Your task to perform on an android device: create a new album in the google photos Image 0: 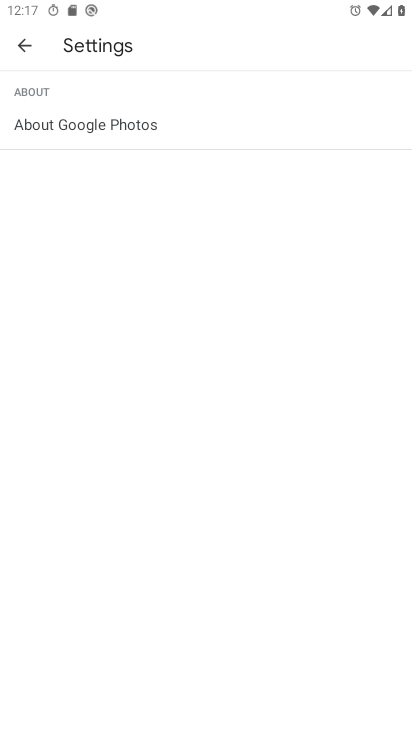
Step 0: click (20, 40)
Your task to perform on an android device: create a new album in the google photos Image 1: 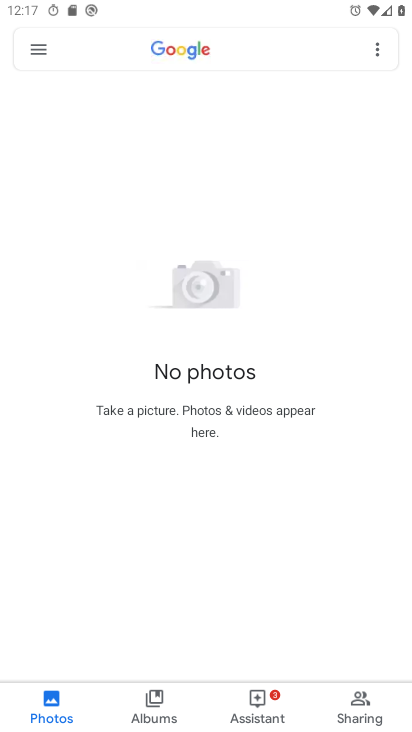
Step 1: press home button
Your task to perform on an android device: create a new album in the google photos Image 2: 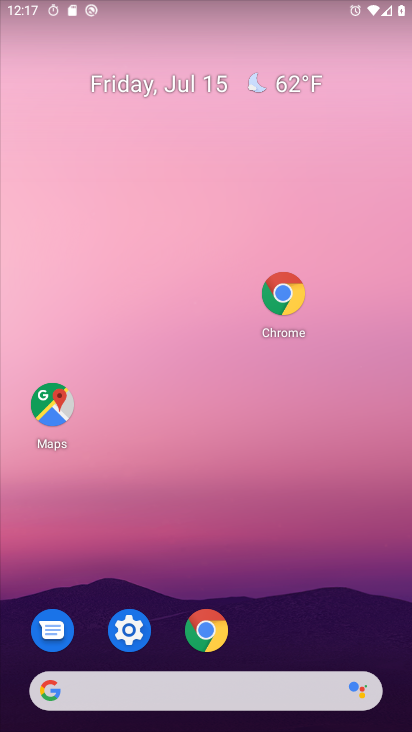
Step 2: drag from (324, 625) to (264, 58)
Your task to perform on an android device: create a new album in the google photos Image 3: 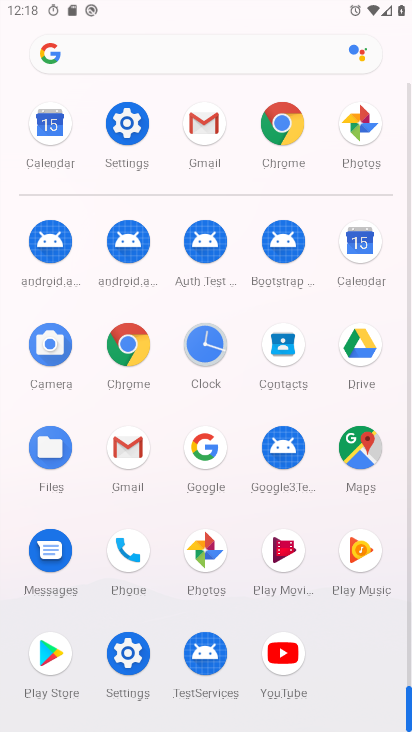
Step 3: click (211, 556)
Your task to perform on an android device: create a new album in the google photos Image 4: 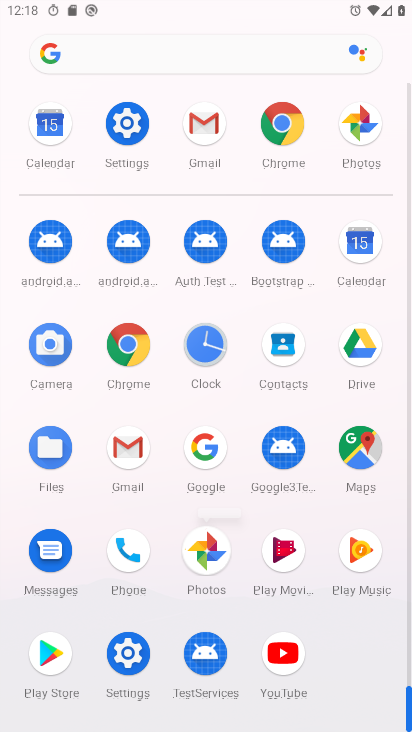
Step 4: click (209, 556)
Your task to perform on an android device: create a new album in the google photos Image 5: 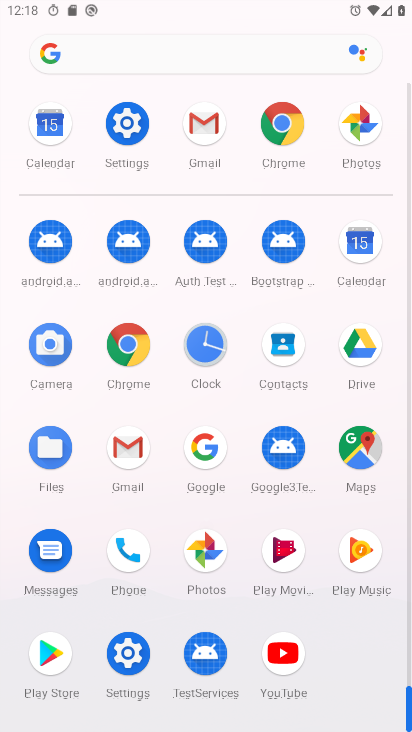
Step 5: click (209, 556)
Your task to perform on an android device: create a new album in the google photos Image 6: 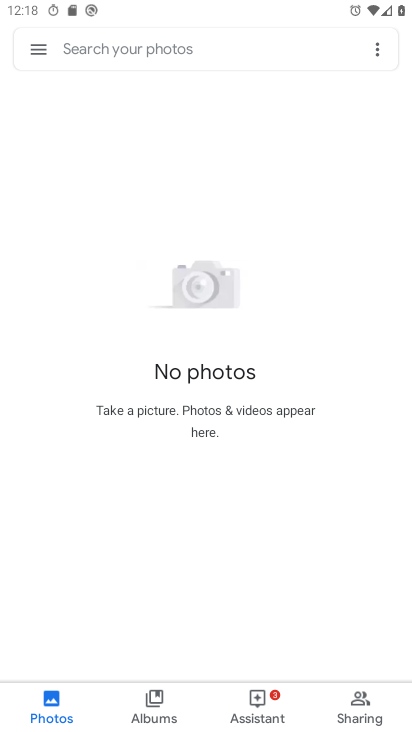
Step 6: click (164, 713)
Your task to perform on an android device: create a new album in the google photos Image 7: 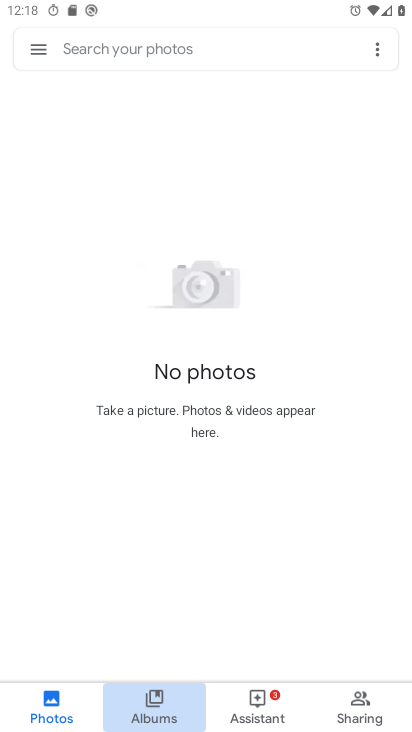
Step 7: click (162, 712)
Your task to perform on an android device: create a new album in the google photos Image 8: 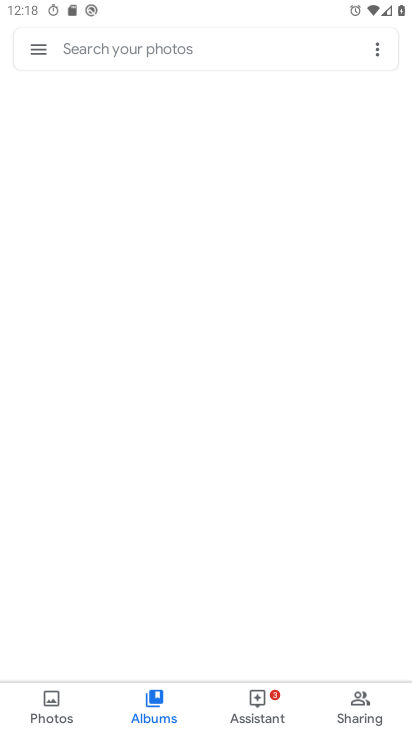
Step 8: click (162, 713)
Your task to perform on an android device: create a new album in the google photos Image 9: 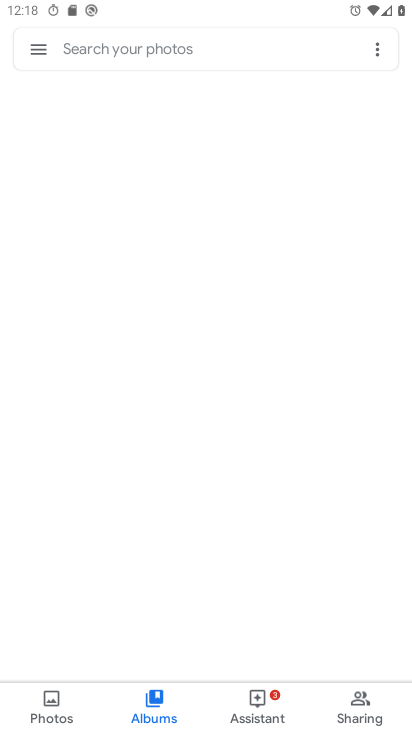
Step 9: click (162, 713)
Your task to perform on an android device: create a new album in the google photos Image 10: 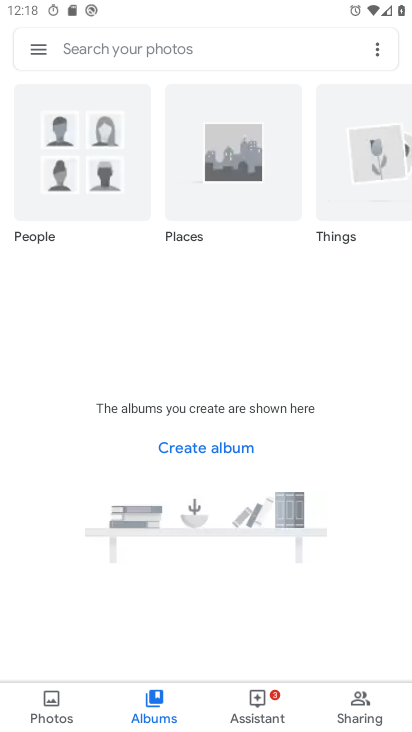
Step 10: click (204, 445)
Your task to perform on an android device: create a new album in the google photos Image 11: 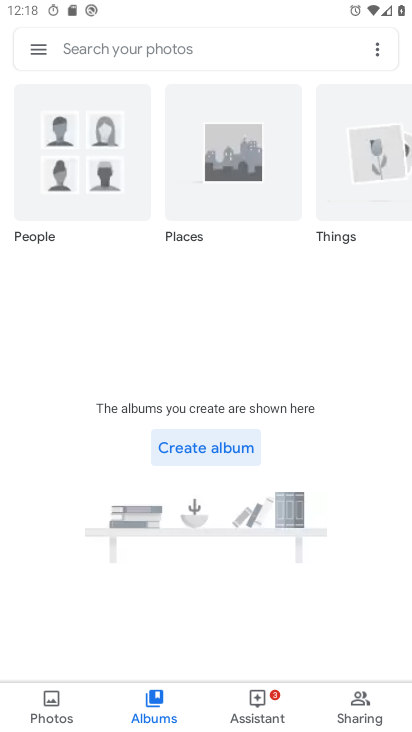
Step 11: click (227, 459)
Your task to perform on an android device: create a new album in the google photos Image 12: 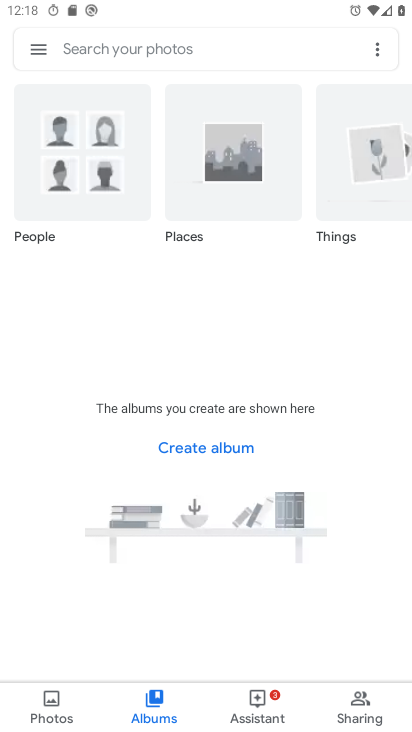
Step 12: click (227, 459)
Your task to perform on an android device: create a new album in the google photos Image 13: 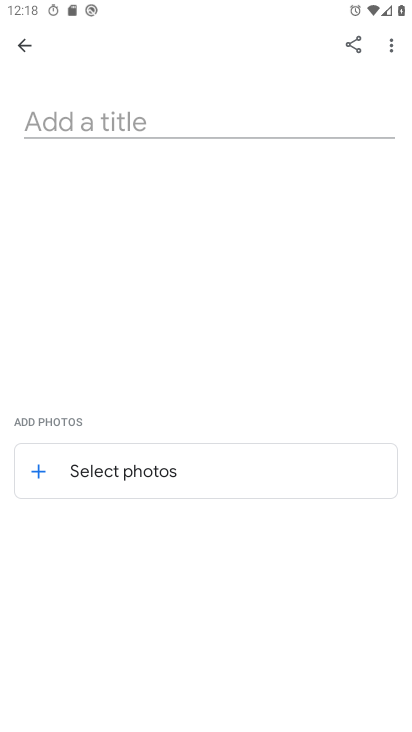
Step 13: click (69, 114)
Your task to perform on an android device: create a new album in the google photos Image 14: 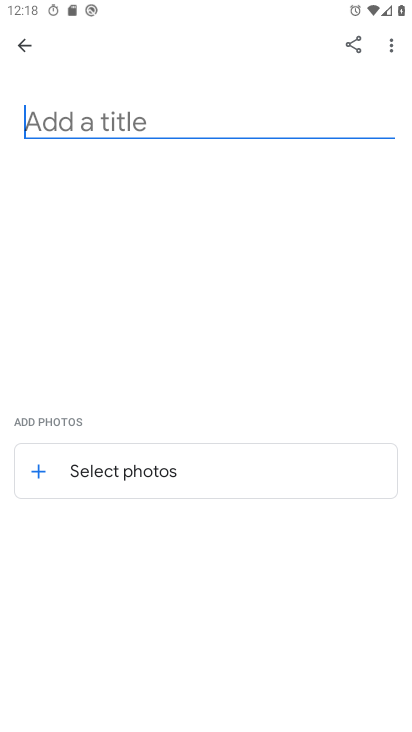
Step 14: click (69, 114)
Your task to perform on an android device: create a new album in the google photos Image 15: 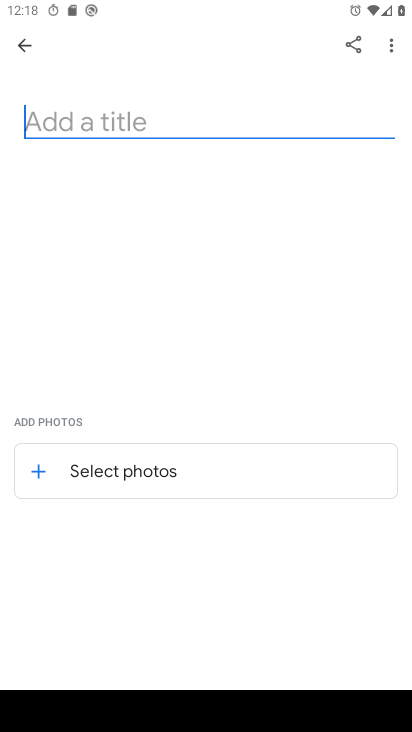
Step 15: type "Somesh"
Your task to perform on an android device: create a new album in the google photos Image 16: 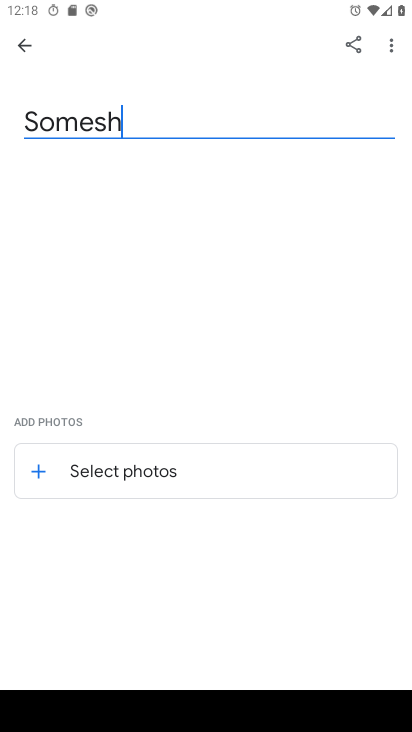
Step 16: click (92, 476)
Your task to perform on an android device: create a new album in the google photos Image 17: 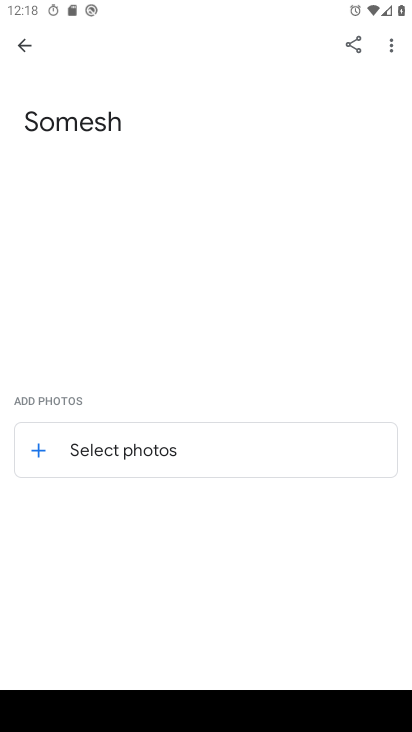
Step 17: click (92, 476)
Your task to perform on an android device: create a new album in the google photos Image 18: 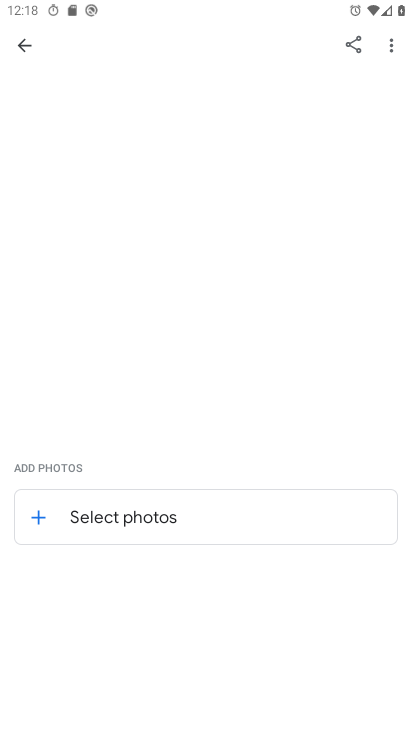
Step 18: click (92, 476)
Your task to perform on an android device: create a new album in the google photos Image 19: 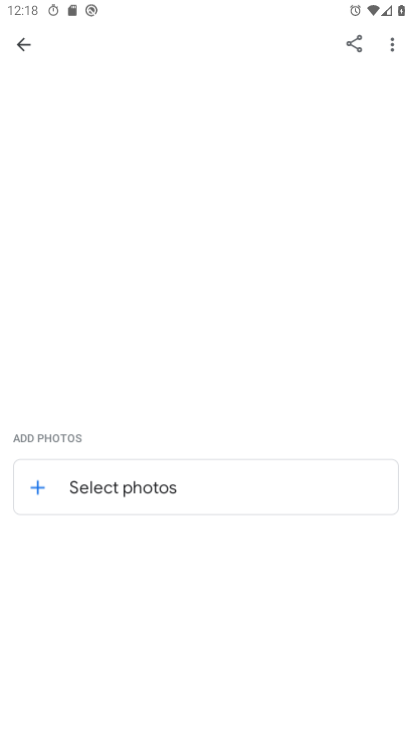
Step 19: click (92, 476)
Your task to perform on an android device: create a new album in the google photos Image 20: 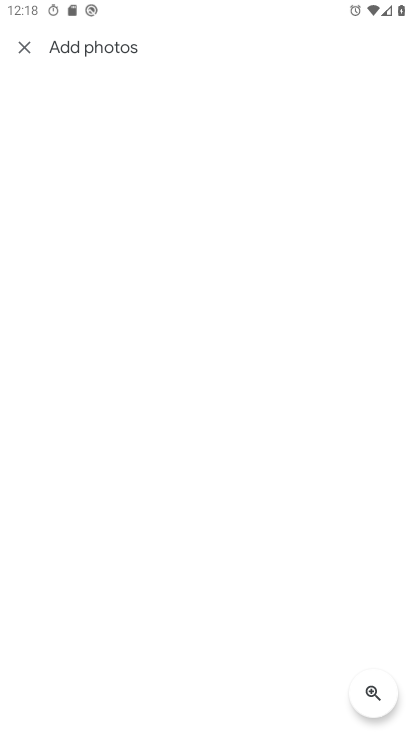
Step 20: click (18, 56)
Your task to perform on an android device: create a new album in the google photos Image 21: 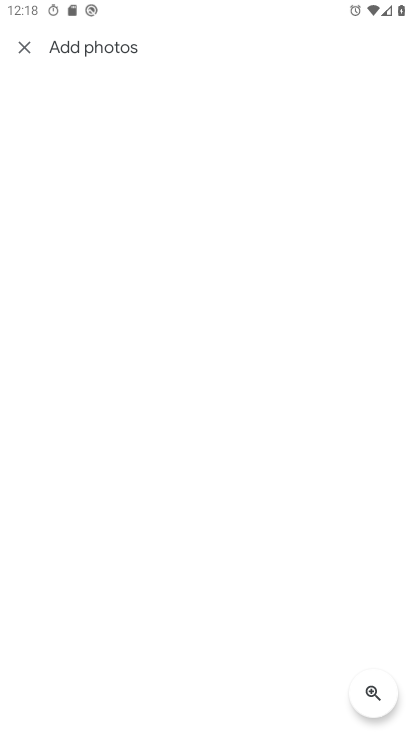
Step 21: click (18, 56)
Your task to perform on an android device: create a new album in the google photos Image 22: 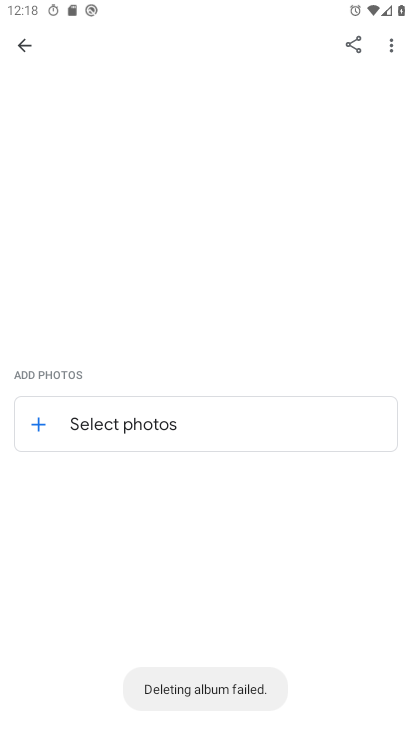
Step 22: click (100, 422)
Your task to perform on an android device: create a new album in the google photos Image 23: 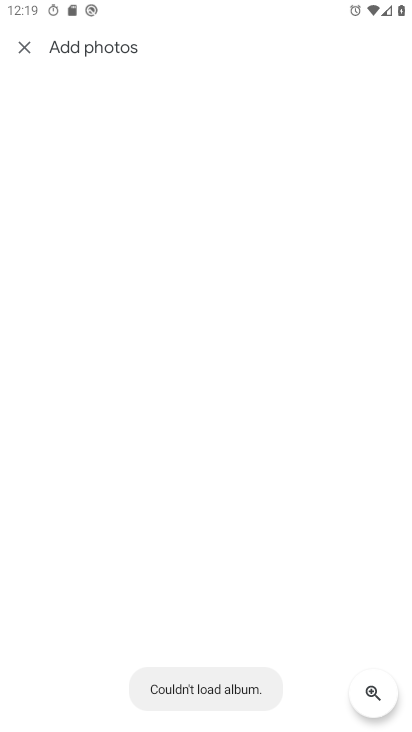
Step 23: task complete